Your task to perform on an android device: Open Amazon Image 0: 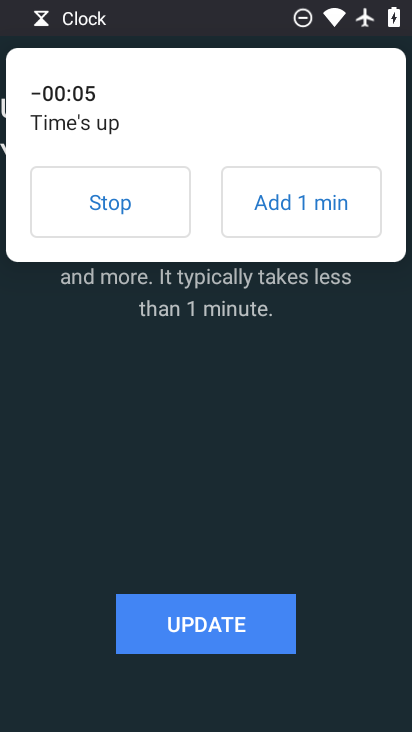
Step 0: click (109, 210)
Your task to perform on an android device: Open Amazon Image 1: 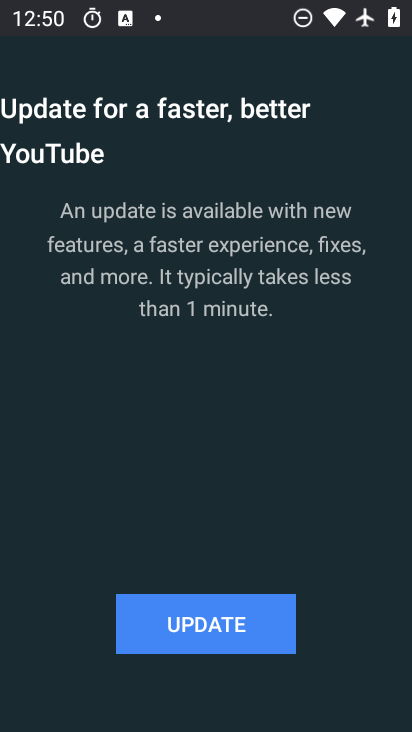
Step 1: press home button
Your task to perform on an android device: Open Amazon Image 2: 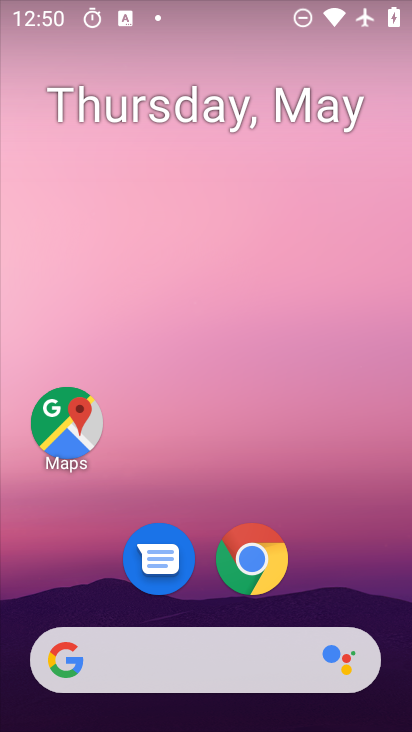
Step 2: click (261, 573)
Your task to perform on an android device: Open Amazon Image 3: 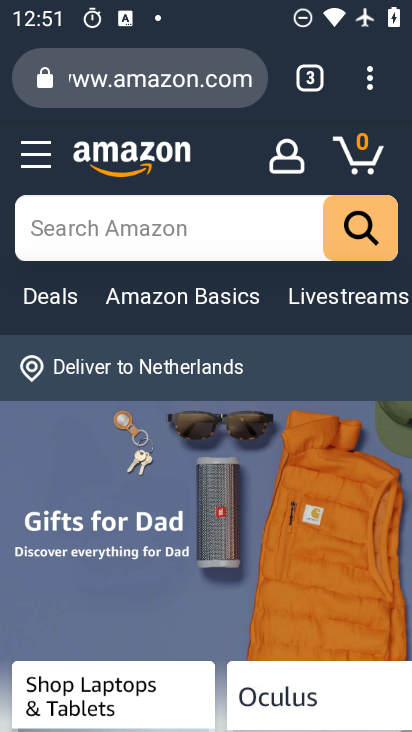
Step 3: task complete